Your task to perform on an android device: Open Youtube and go to "Your channel" Image 0: 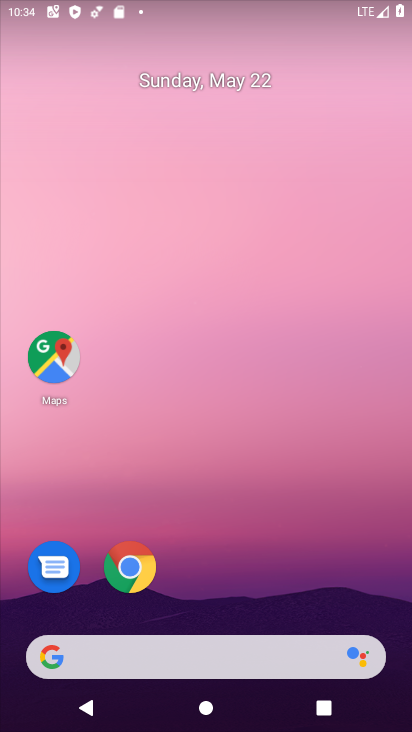
Step 0: drag from (392, 629) to (345, 16)
Your task to perform on an android device: Open Youtube and go to "Your channel" Image 1: 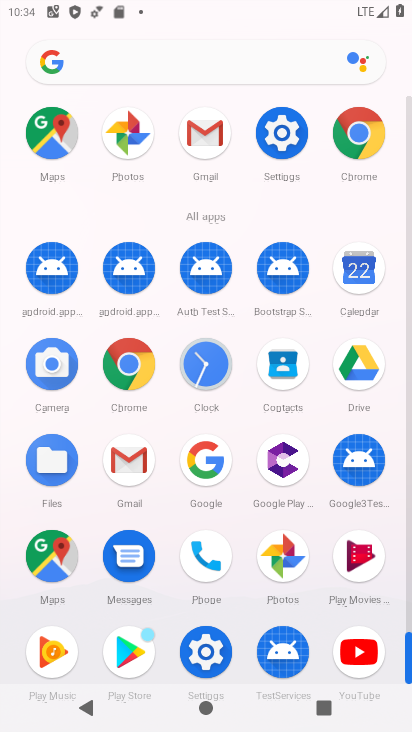
Step 1: click (359, 653)
Your task to perform on an android device: Open Youtube and go to "Your channel" Image 2: 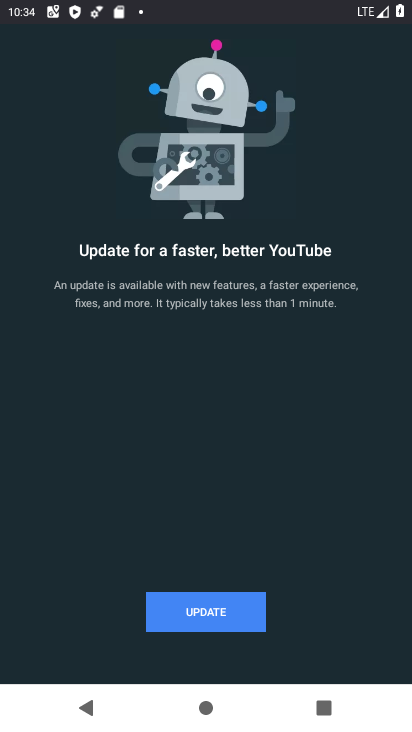
Step 2: click (205, 607)
Your task to perform on an android device: Open Youtube and go to "Your channel" Image 3: 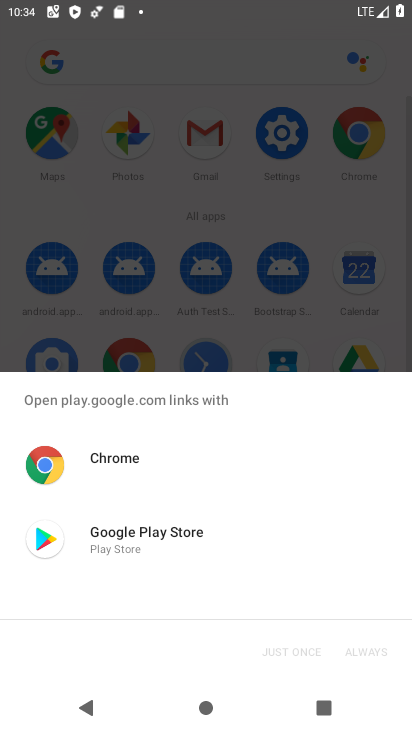
Step 3: click (104, 527)
Your task to perform on an android device: Open Youtube and go to "Your channel" Image 4: 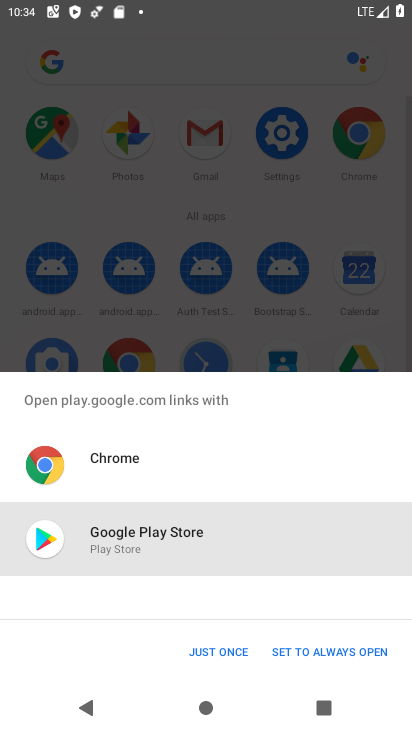
Step 4: click (202, 643)
Your task to perform on an android device: Open Youtube and go to "Your channel" Image 5: 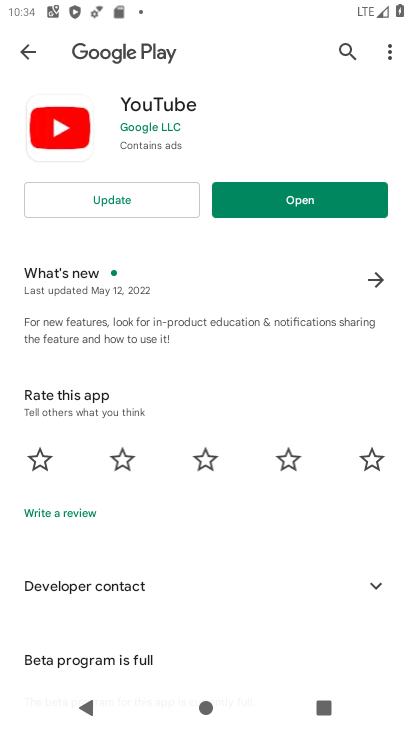
Step 5: click (108, 195)
Your task to perform on an android device: Open Youtube and go to "Your channel" Image 6: 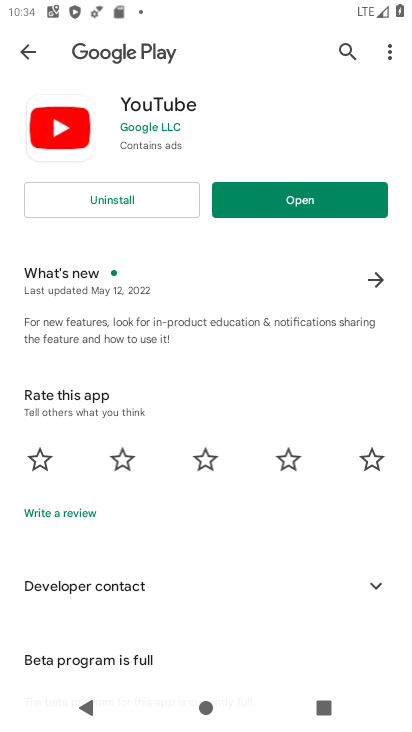
Step 6: click (309, 196)
Your task to perform on an android device: Open Youtube and go to "Your channel" Image 7: 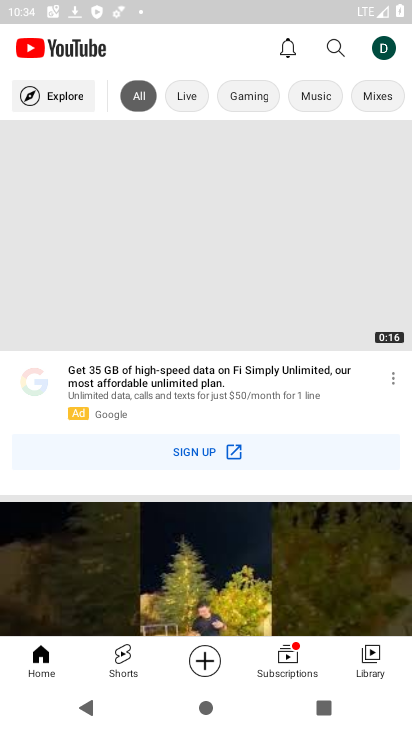
Step 7: click (379, 48)
Your task to perform on an android device: Open Youtube and go to "Your channel" Image 8: 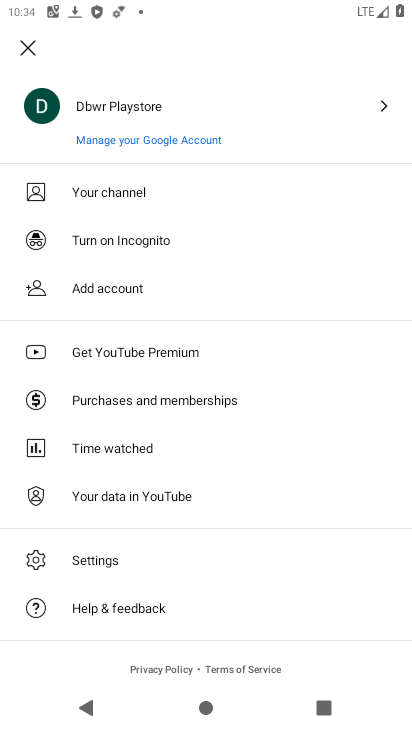
Step 8: click (81, 184)
Your task to perform on an android device: Open Youtube and go to "Your channel" Image 9: 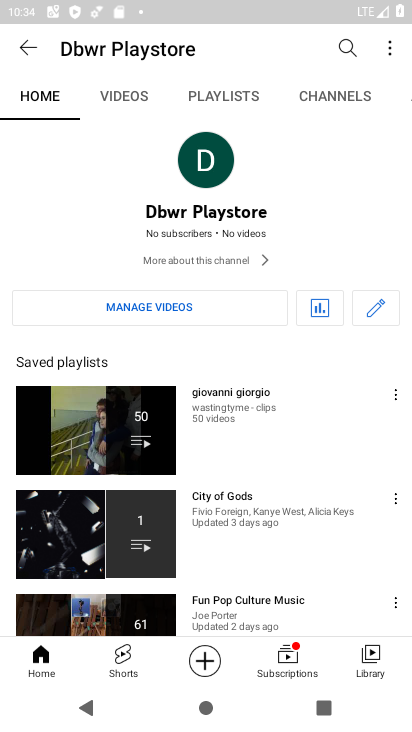
Step 9: task complete